Your task to perform on an android device: turn off sleep mode Image 0: 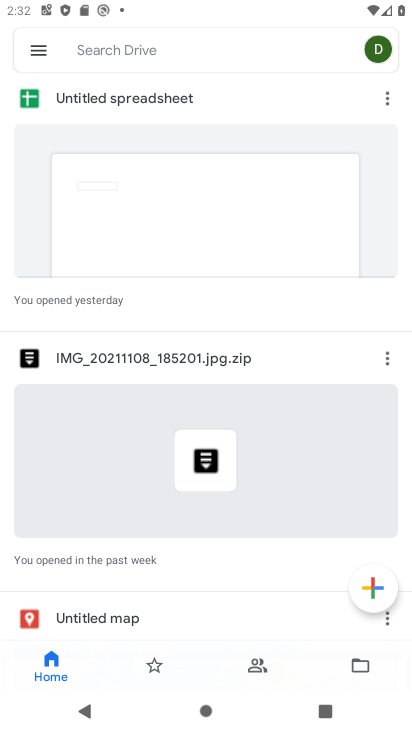
Step 0: press home button
Your task to perform on an android device: turn off sleep mode Image 1: 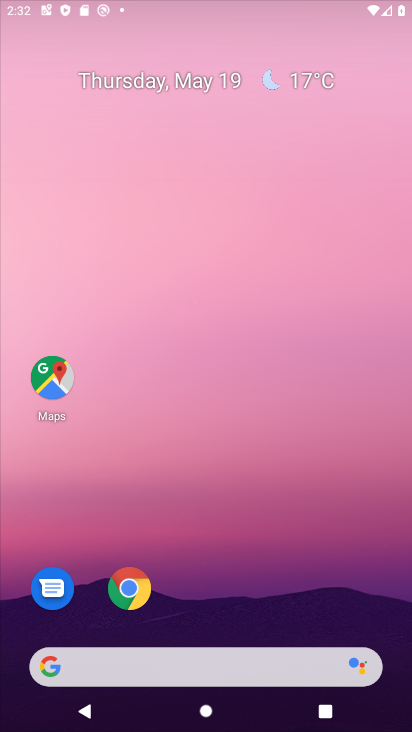
Step 1: drag from (245, 563) to (253, 52)
Your task to perform on an android device: turn off sleep mode Image 2: 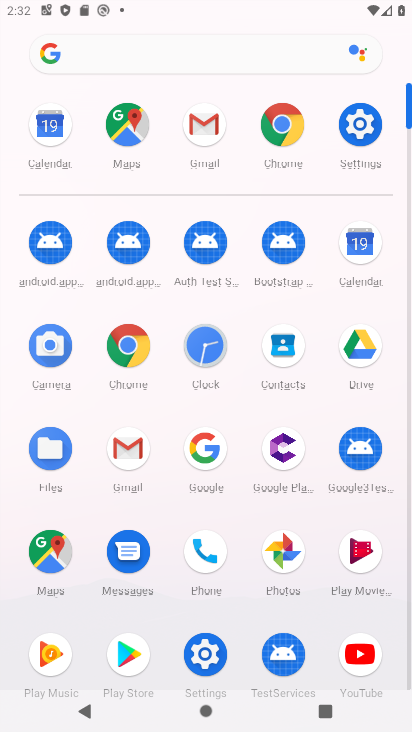
Step 2: click (375, 120)
Your task to perform on an android device: turn off sleep mode Image 3: 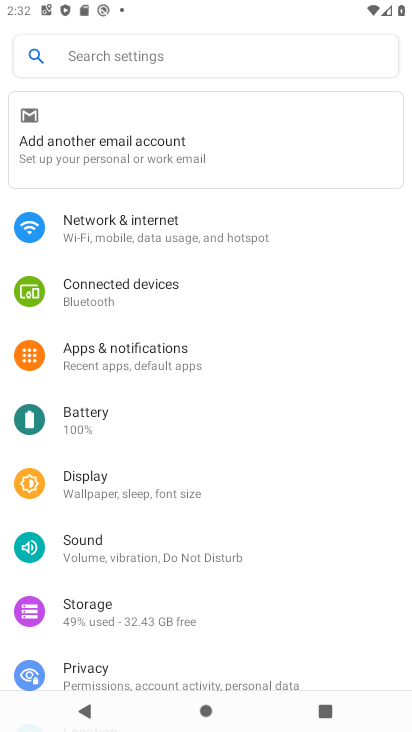
Step 3: click (85, 489)
Your task to perform on an android device: turn off sleep mode Image 4: 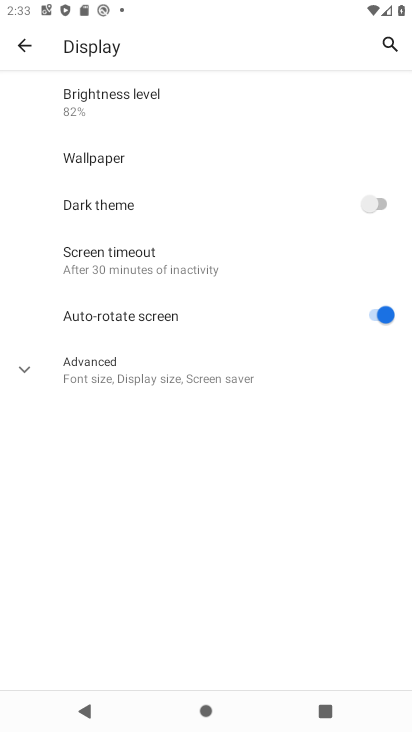
Step 4: click (138, 260)
Your task to perform on an android device: turn off sleep mode Image 5: 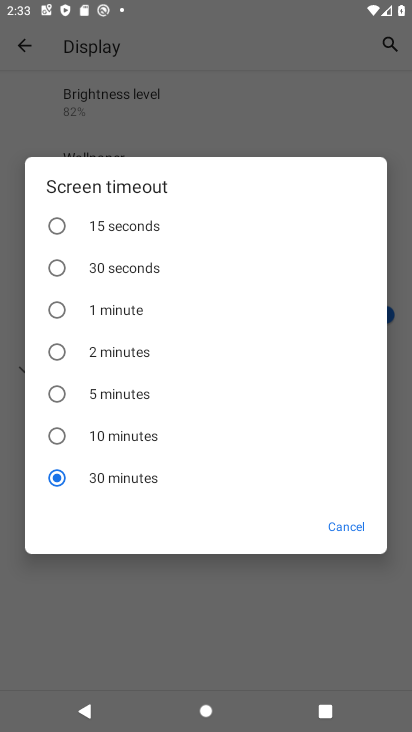
Step 5: task complete